Your task to perform on an android device: set an alarm Image 0: 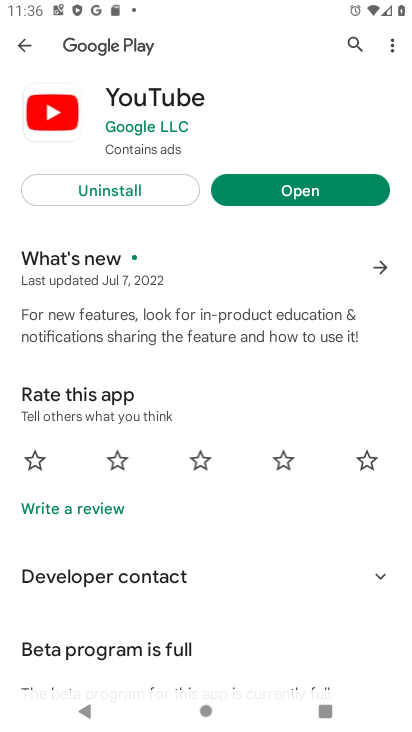
Step 0: press home button
Your task to perform on an android device: set an alarm Image 1: 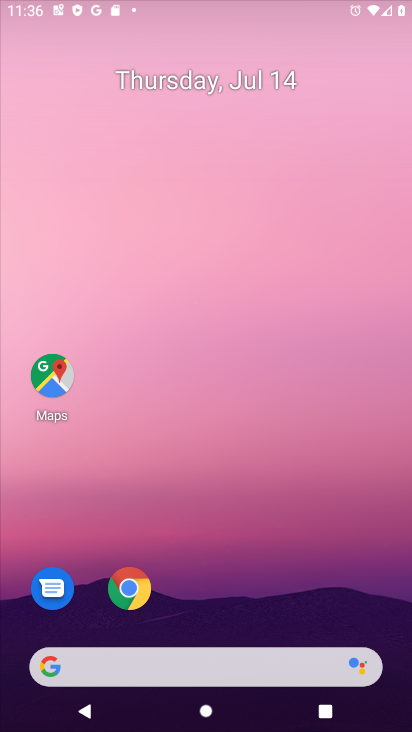
Step 1: drag from (292, 619) to (299, 46)
Your task to perform on an android device: set an alarm Image 2: 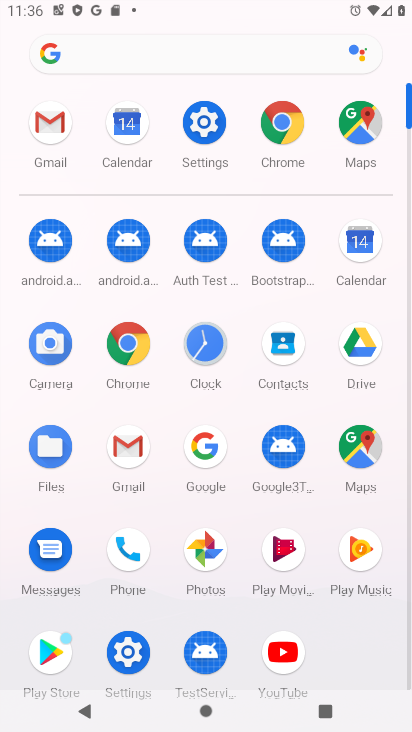
Step 2: click (208, 344)
Your task to perform on an android device: set an alarm Image 3: 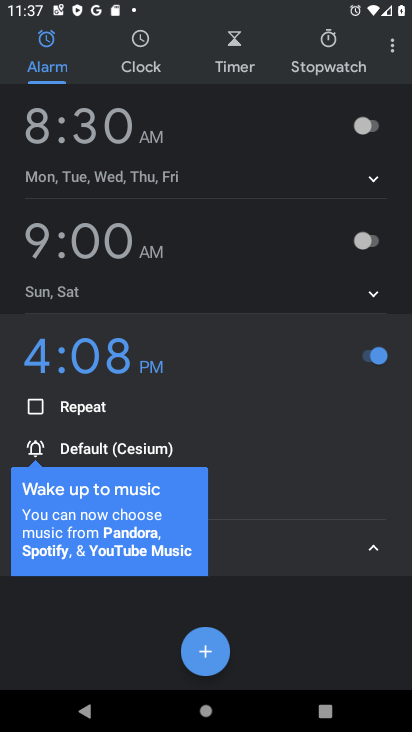
Step 3: click (201, 669)
Your task to perform on an android device: set an alarm Image 4: 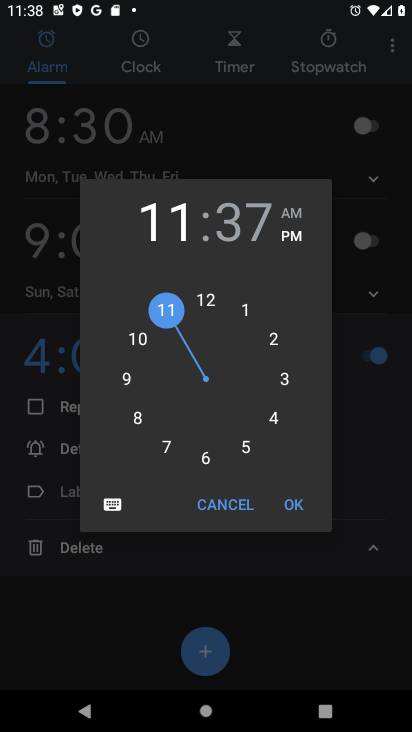
Step 4: click (300, 496)
Your task to perform on an android device: set an alarm Image 5: 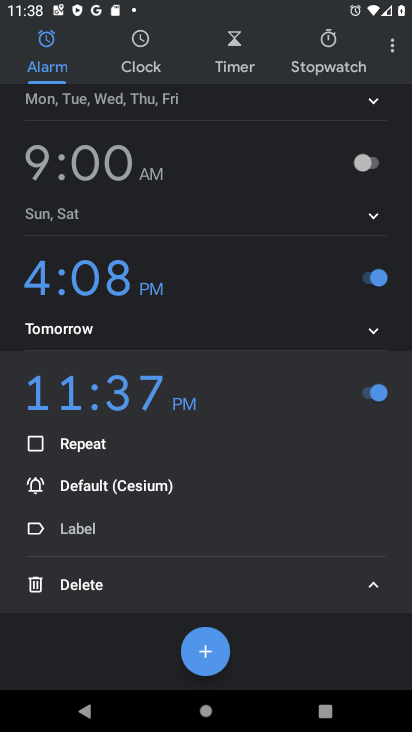
Step 5: task complete